Your task to perform on an android device: change text size in settings app Image 0: 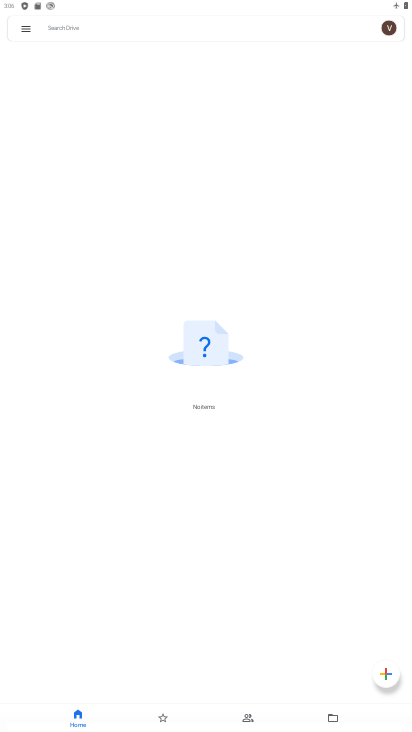
Step 0: press home button
Your task to perform on an android device: change text size in settings app Image 1: 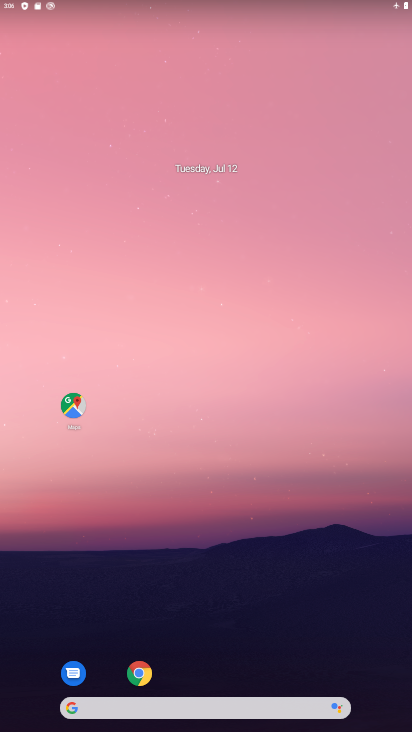
Step 1: drag from (200, 701) to (293, 152)
Your task to perform on an android device: change text size in settings app Image 2: 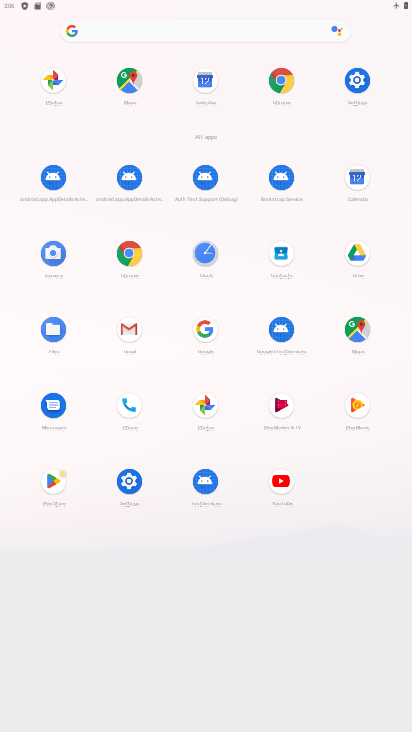
Step 2: click (360, 79)
Your task to perform on an android device: change text size in settings app Image 3: 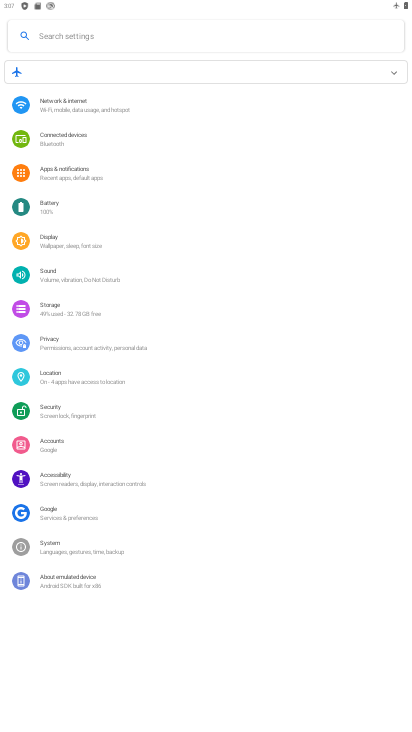
Step 3: click (52, 476)
Your task to perform on an android device: change text size in settings app Image 4: 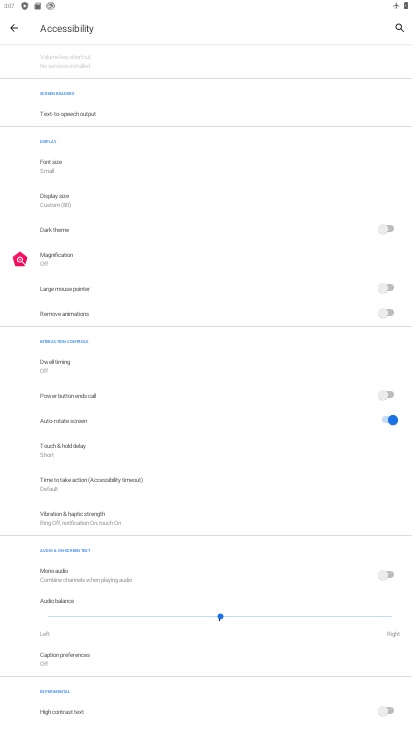
Step 4: click (48, 176)
Your task to perform on an android device: change text size in settings app Image 5: 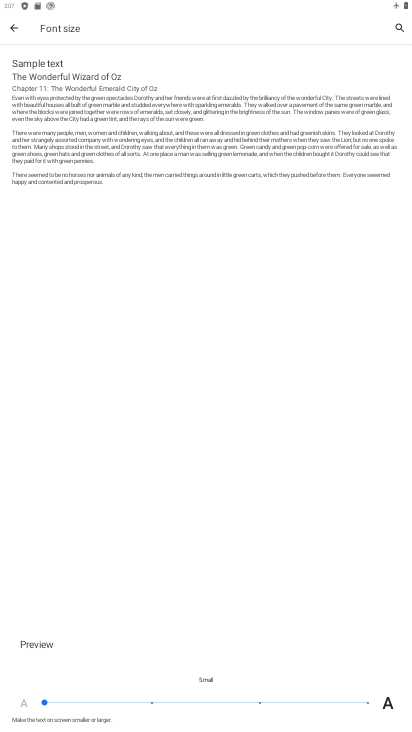
Step 5: click (372, 704)
Your task to perform on an android device: change text size in settings app Image 6: 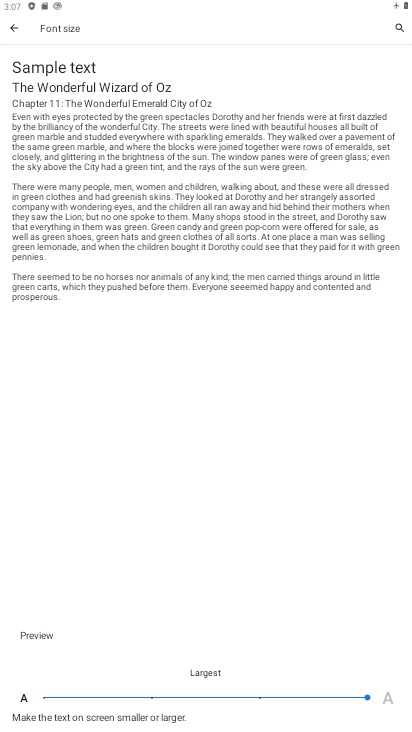
Step 6: task complete